Your task to perform on an android device: create a new album in the google photos Image 0: 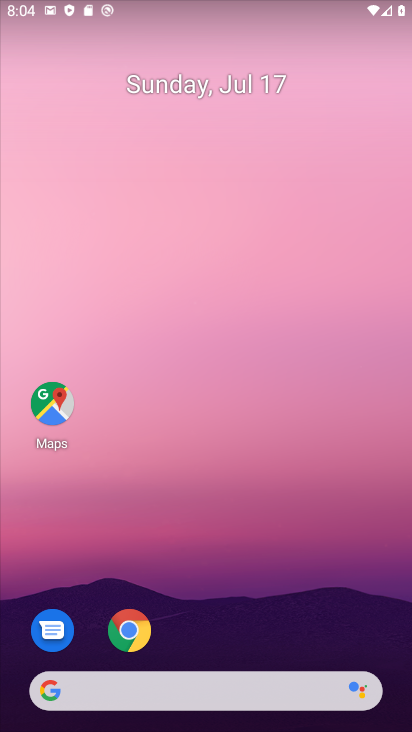
Step 0: drag from (263, 624) to (262, 5)
Your task to perform on an android device: create a new album in the google photos Image 1: 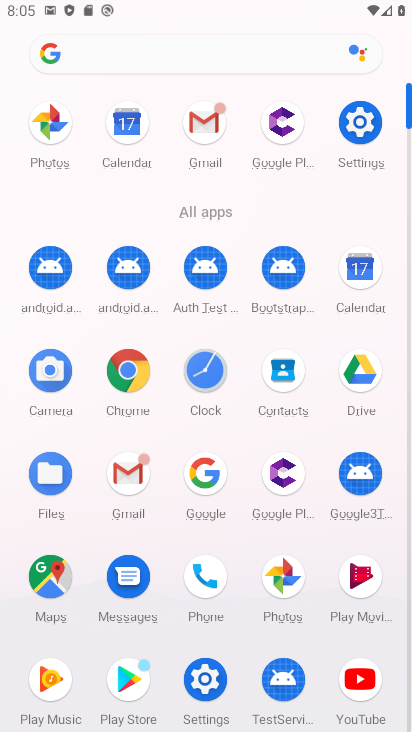
Step 1: click (296, 590)
Your task to perform on an android device: create a new album in the google photos Image 2: 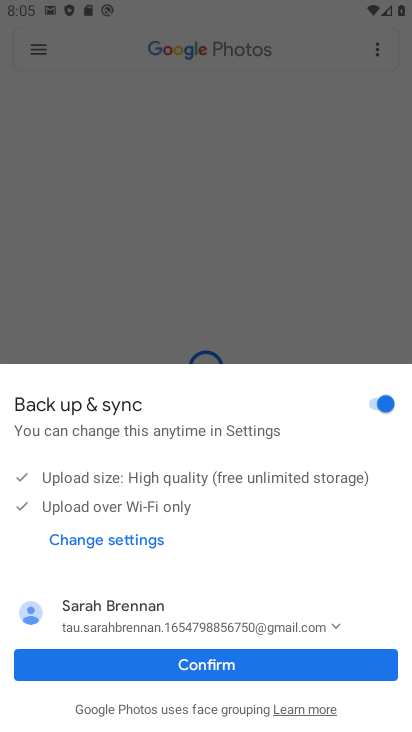
Step 2: click (203, 669)
Your task to perform on an android device: create a new album in the google photos Image 3: 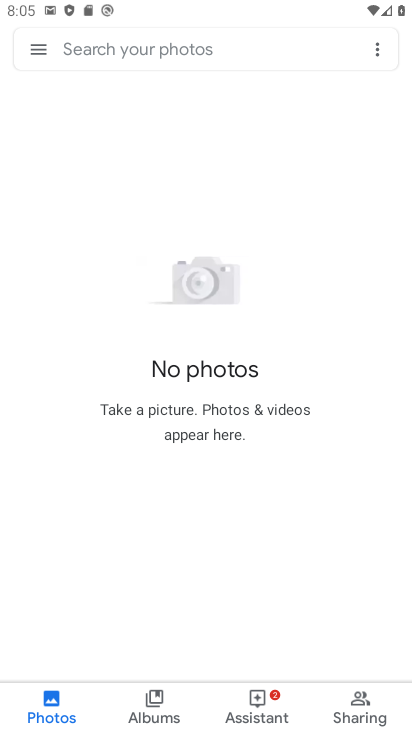
Step 3: click (156, 704)
Your task to perform on an android device: create a new album in the google photos Image 4: 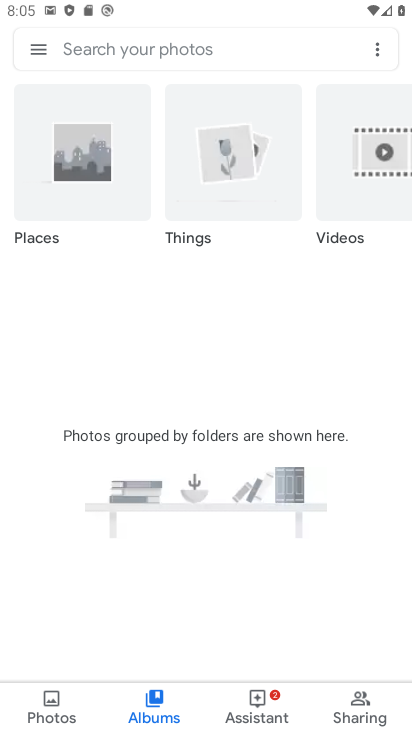
Step 4: task complete